Your task to perform on an android device: Clear all items from cart on bestbuy. Search for rayovac triple a on bestbuy, select the first entry, and add it to the cart. Image 0: 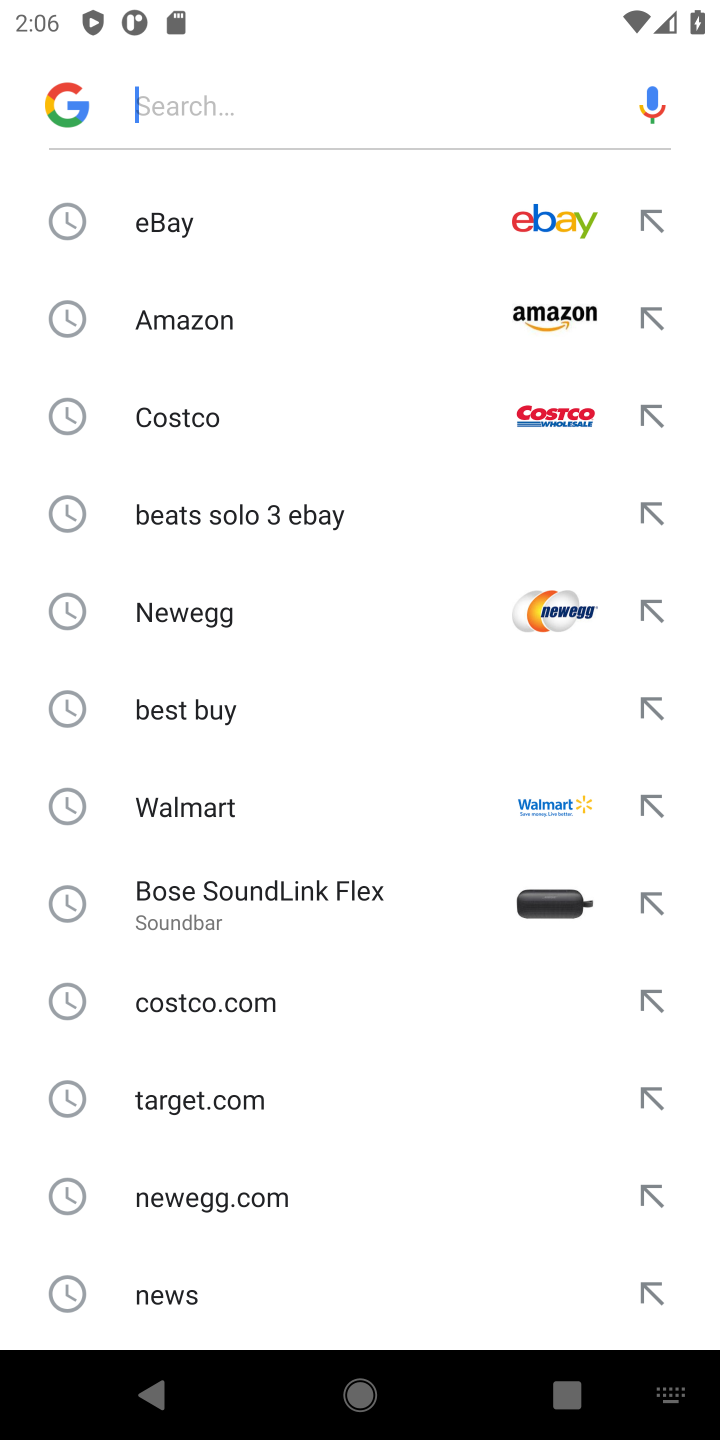
Step 0: click (274, 709)
Your task to perform on an android device: Clear all items from cart on bestbuy. Search for rayovac triple a on bestbuy, select the first entry, and add it to the cart. Image 1: 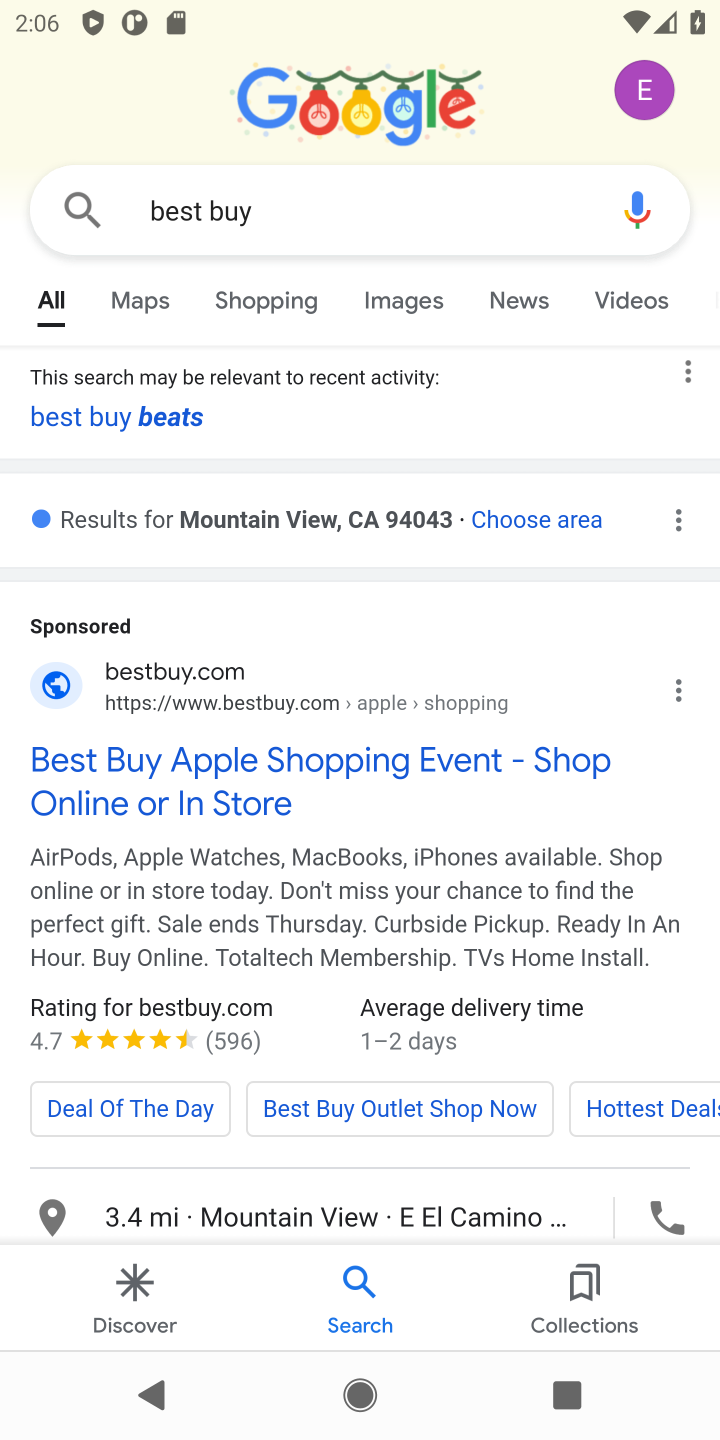
Step 1: click (135, 781)
Your task to perform on an android device: Clear all items from cart on bestbuy. Search for rayovac triple a on bestbuy, select the first entry, and add it to the cart. Image 2: 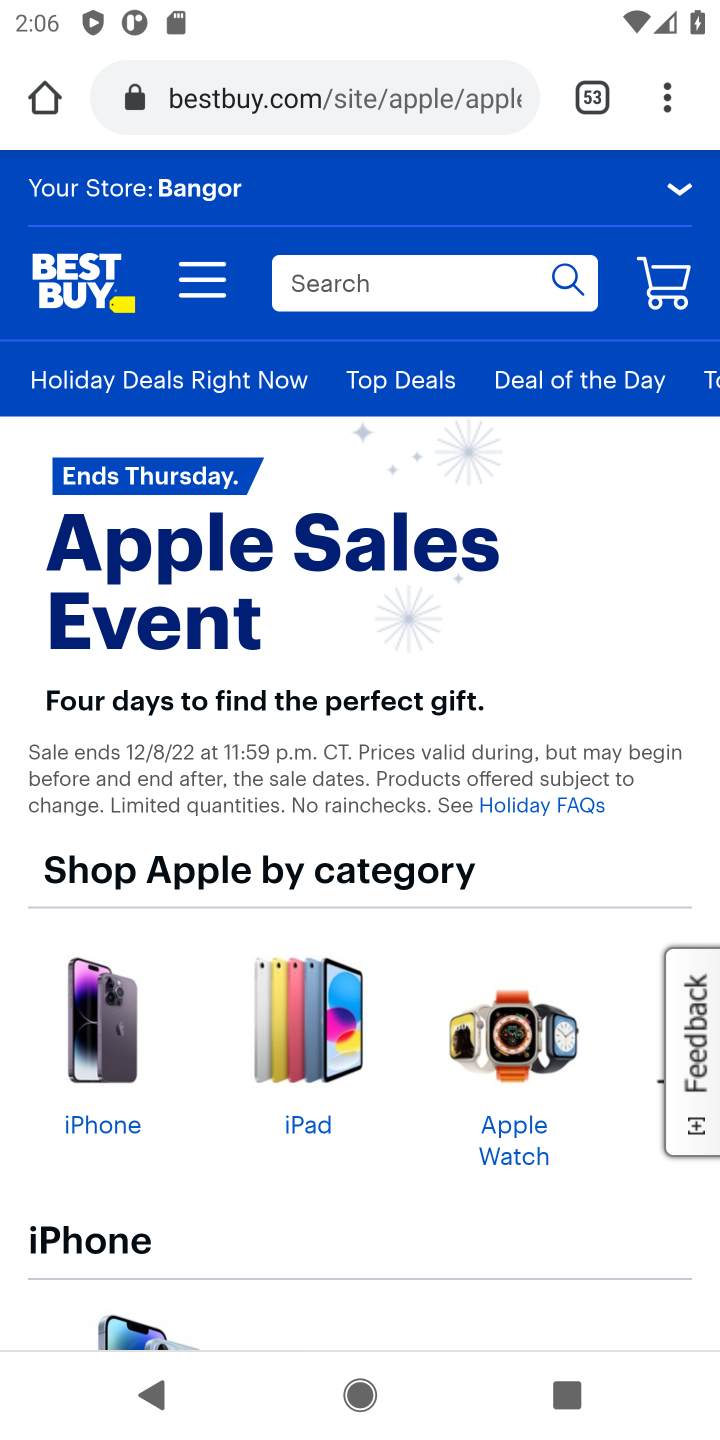
Step 2: click (386, 273)
Your task to perform on an android device: Clear all items from cart on bestbuy. Search for rayovac triple a on bestbuy, select the first entry, and add it to the cart. Image 3: 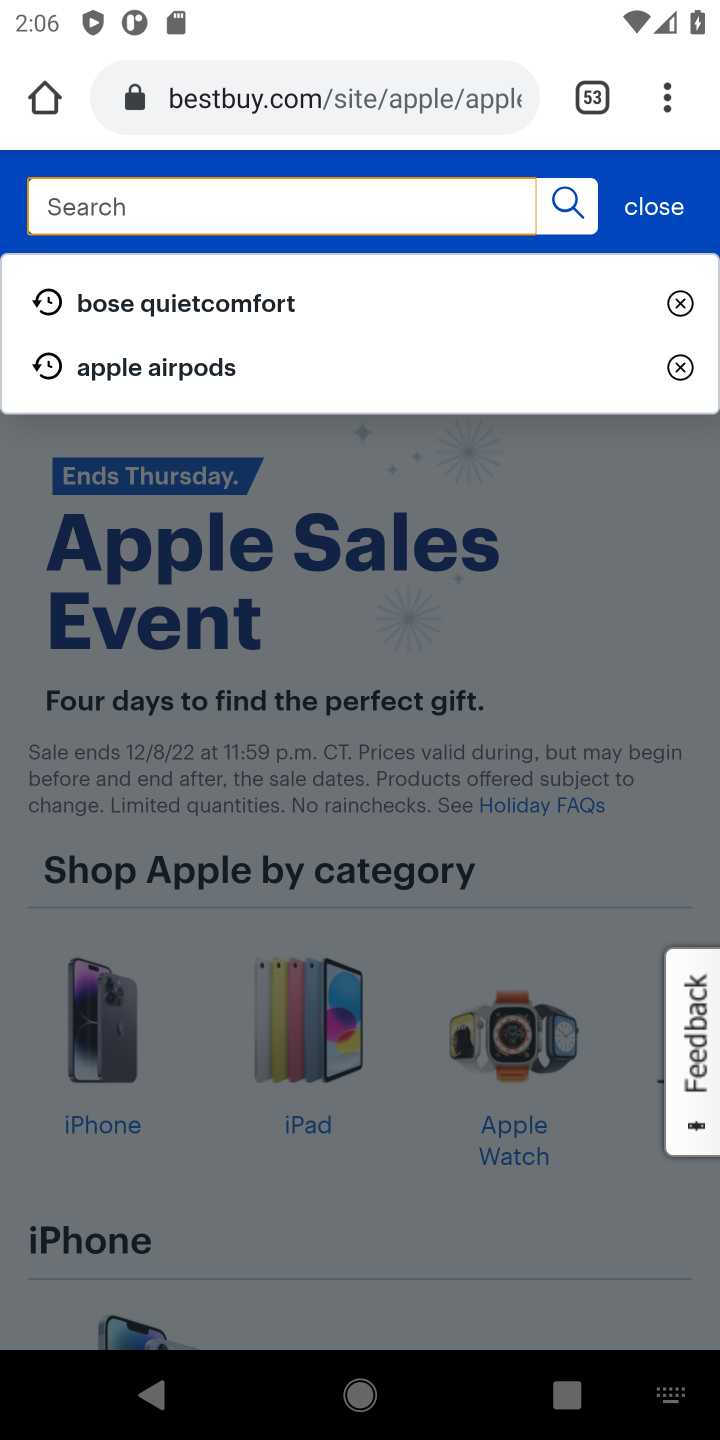
Step 3: type "rayovac triple"
Your task to perform on an android device: Clear all items from cart on bestbuy. Search for rayovac triple a on bestbuy, select the first entry, and add it to the cart. Image 4: 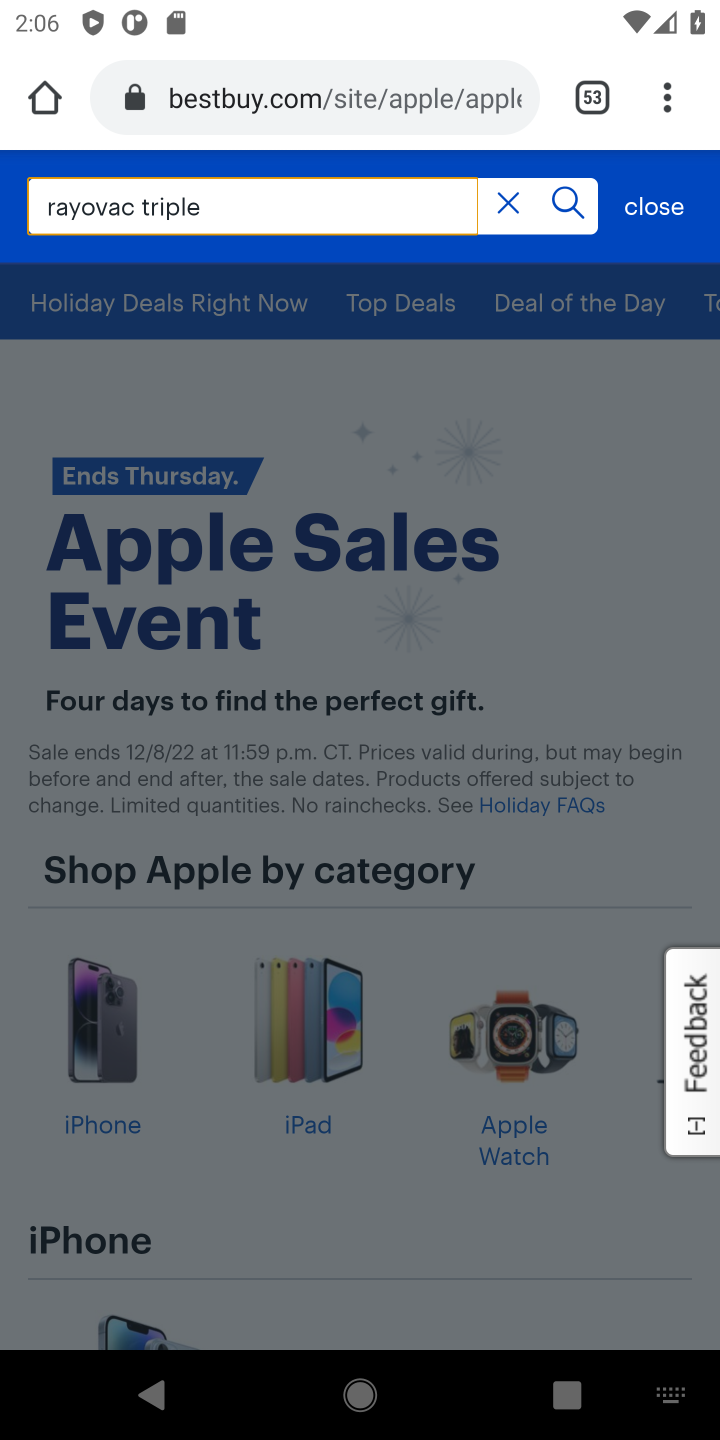
Step 4: click (569, 212)
Your task to perform on an android device: Clear all items from cart on bestbuy. Search for rayovac triple a on bestbuy, select the first entry, and add it to the cart. Image 5: 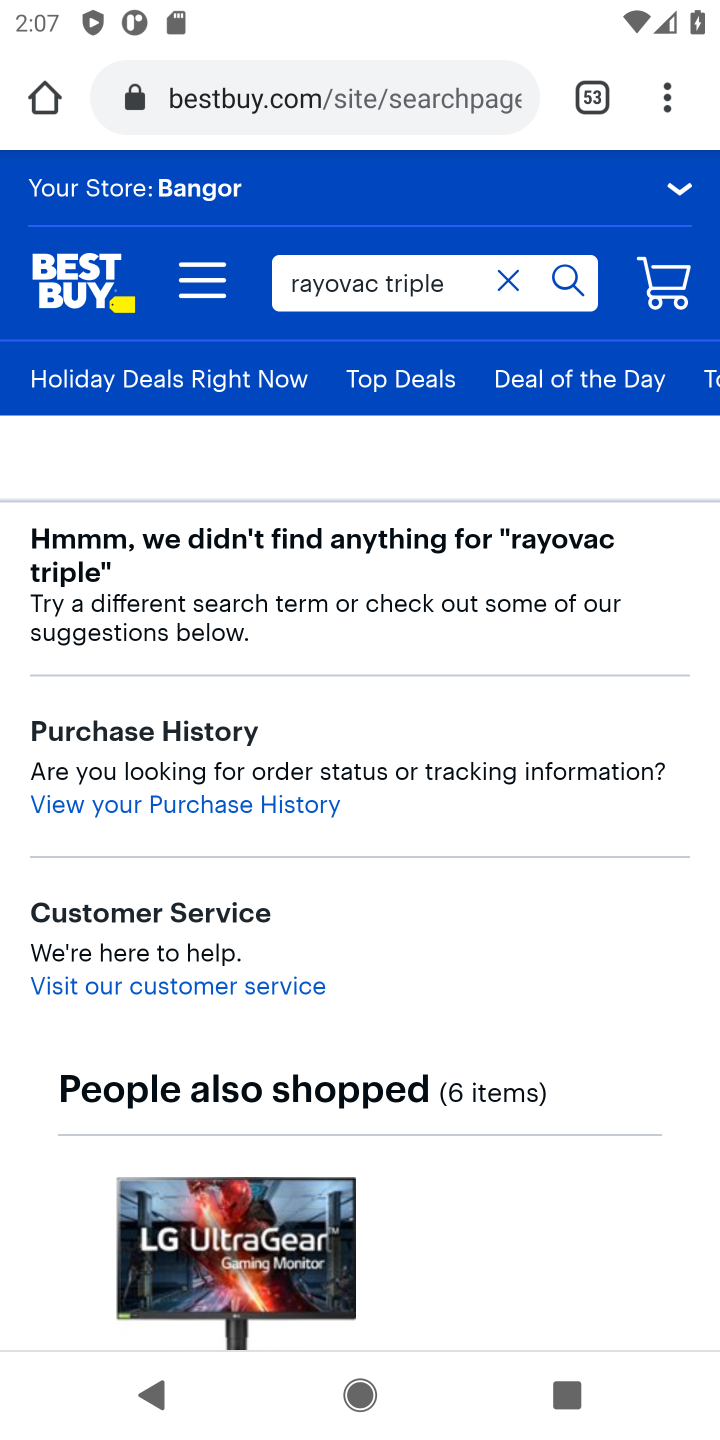
Step 5: task complete